Your task to perform on an android device: Go to internet settings Image 0: 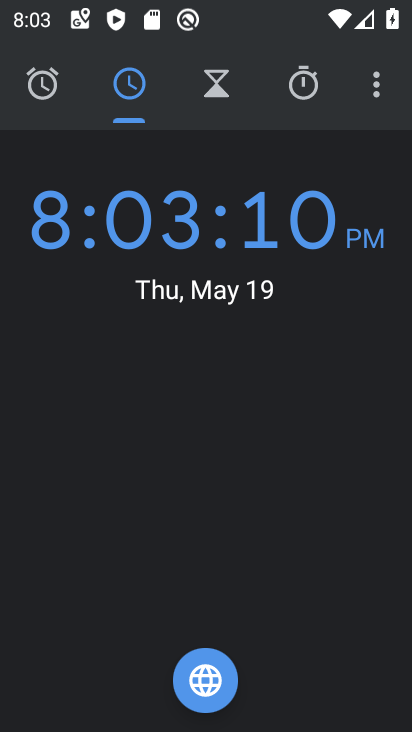
Step 0: press home button
Your task to perform on an android device: Go to internet settings Image 1: 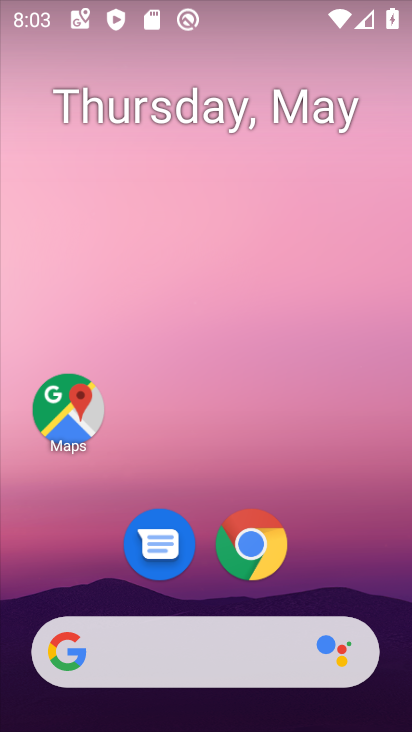
Step 1: drag from (394, 603) to (354, 41)
Your task to perform on an android device: Go to internet settings Image 2: 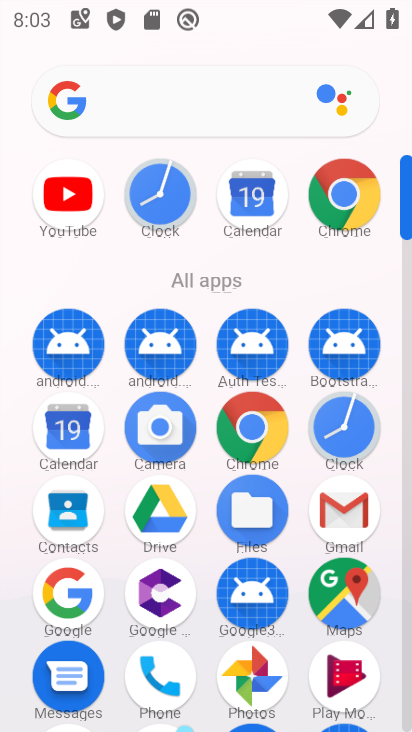
Step 2: click (409, 728)
Your task to perform on an android device: Go to internet settings Image 3: 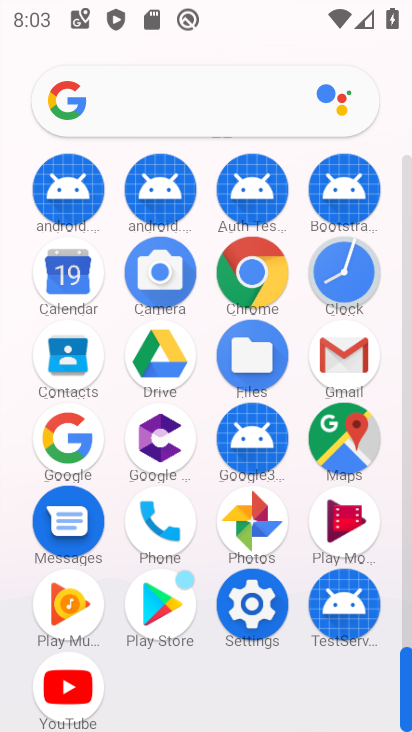
Step 3: click (254, 602)
Your task to perform on an android device: Go to internet settings Image 4: 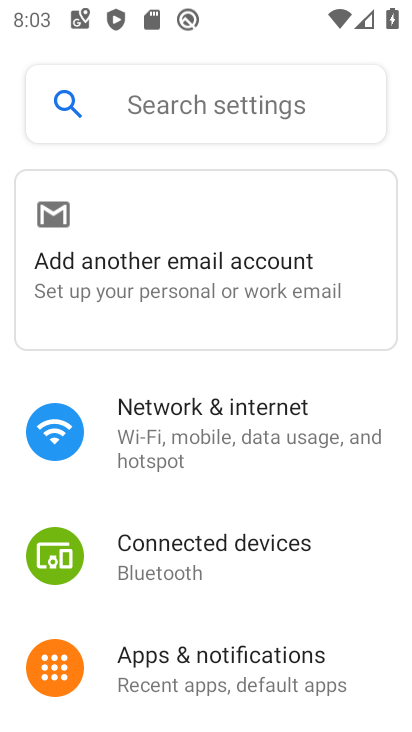
Step 4: click (287, 416)
Your task to perform on an android device: Go to internet settings Image 5: 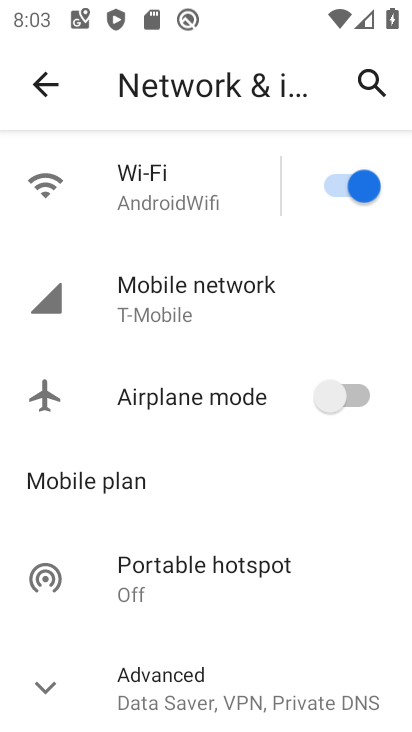
Step 5: task complete